Your task to perform on an android device: Open CNN.com Image 0: 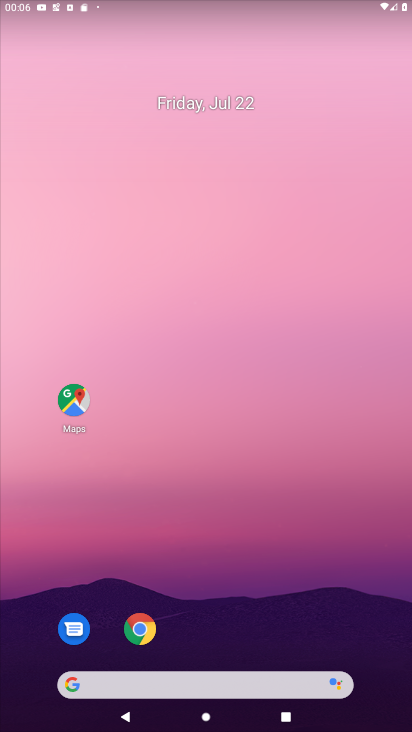
Step 0: drag from (304, 620) to (240, 7)
Your task to perform on an android device: Open CNN.com Image 1: 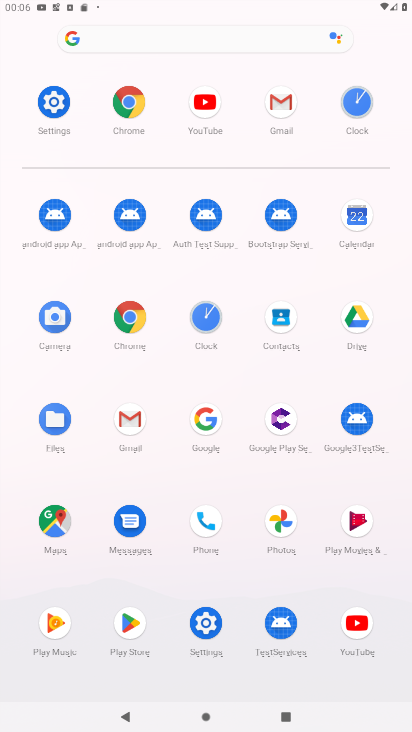
Step 1: click (120, 341)
Your task to perform on an android device: Open CNN.com Image 2: 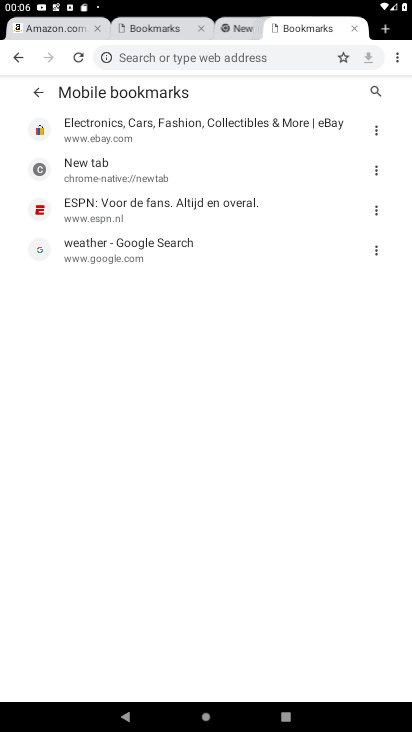
Step 2: click (245, 26)
Your task to perform on an android device: Open CNN.com Image 3: 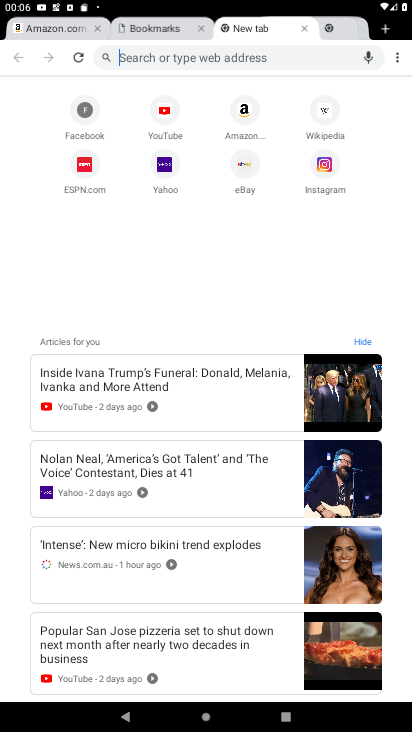
Step 3: type "CNN.com"
Your task to perform on an android device: Open CNN.com Image 4: 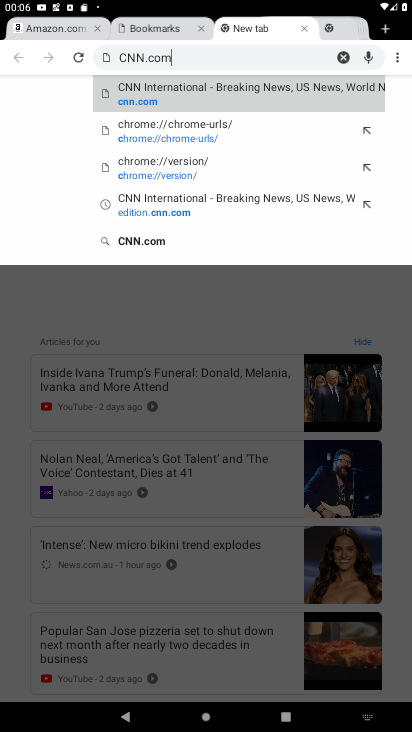
Step 4: type ""
Your task to perform on an android device: Open CNN.com Image 5: 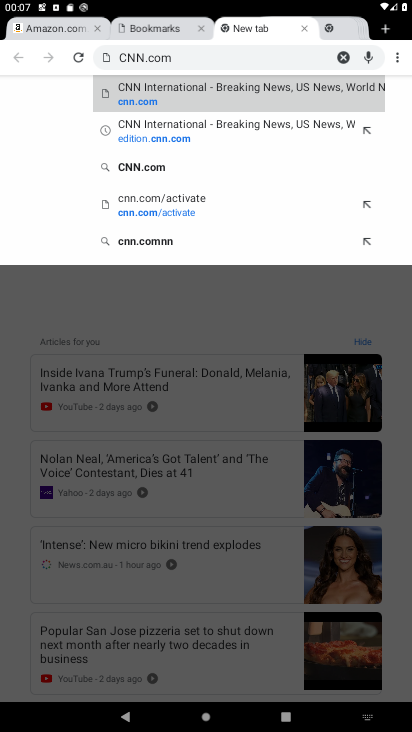
Step 5: click (184, 180)
Your task to perform on an android device: Open CNN.com Image 6: 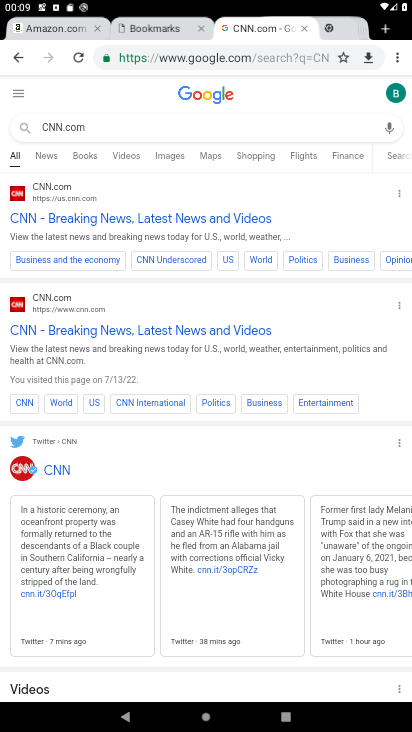
Step 6: task complete